Your task to perform on an android device: Go to CNN.com Image 0: 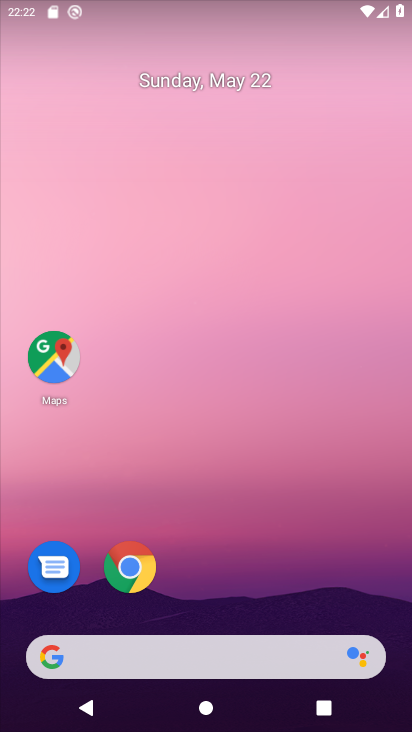
Step 0: click (130, 561)
Your task to perform on an android device: Go to CNN.com Image 1: 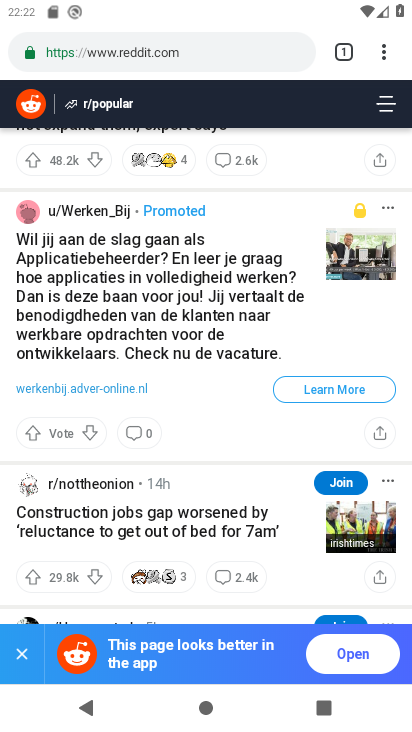
Step 1: click (335, 47)
Your task to perform on an android device: Go to CNN.com Image 2: 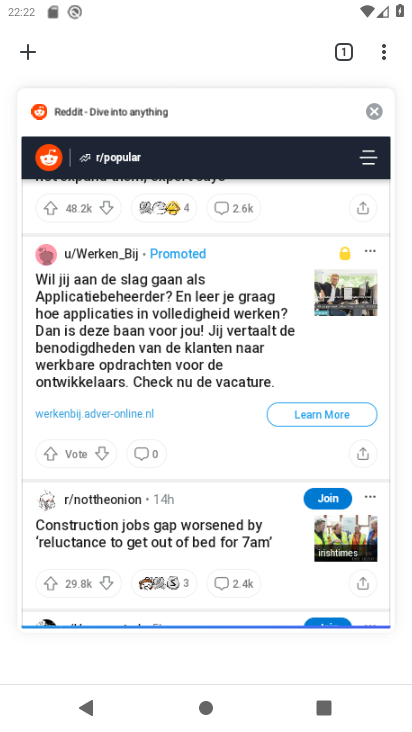
Step 2: click (33, 55)
Your task to perform on an android device: Go to CNN.com Image 3: 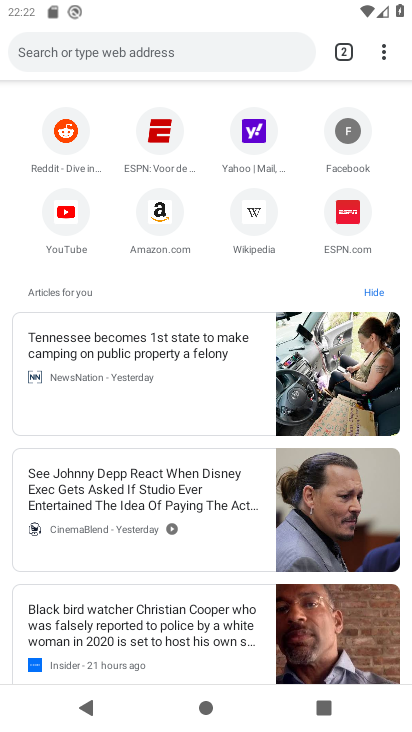
Step 3: click (66, 54)
Your task to perform on an android device: Go to CNN.com Image 4: 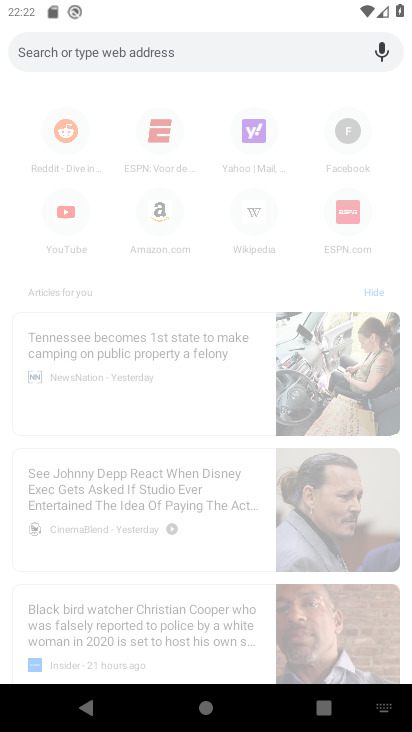
Step 4: type "cnn.com"
Your task to perform on an android device: Go to CNN.com Image 5: 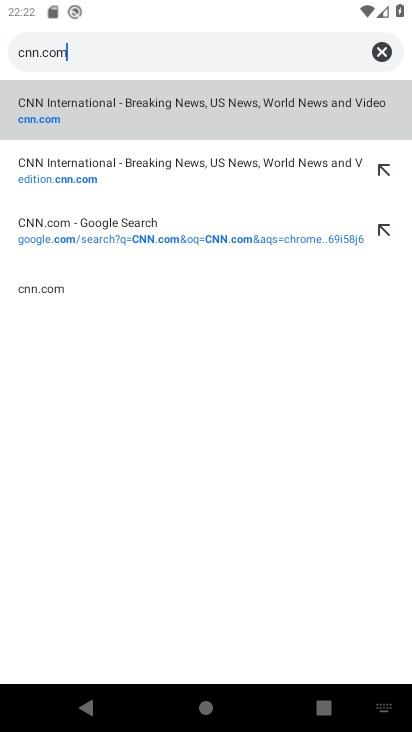
Step 5: click (62, 113)
Your task to perform on an android device: Go to CNN.com Image 6: 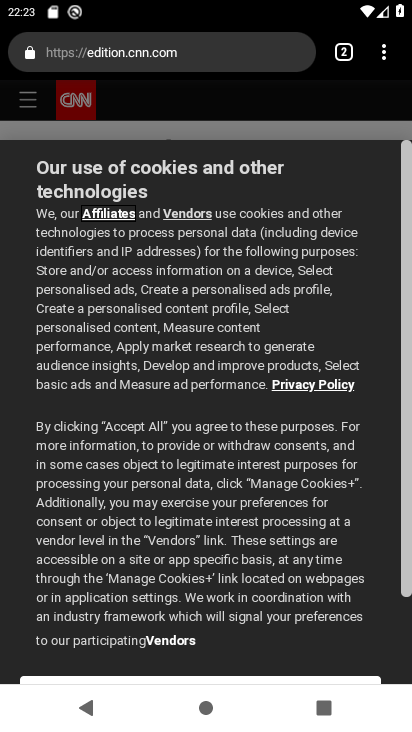
Step 6: drag from (245, 574) to (264, 70)
Your task to perform on an android device: Go to CNN.com Image 7: 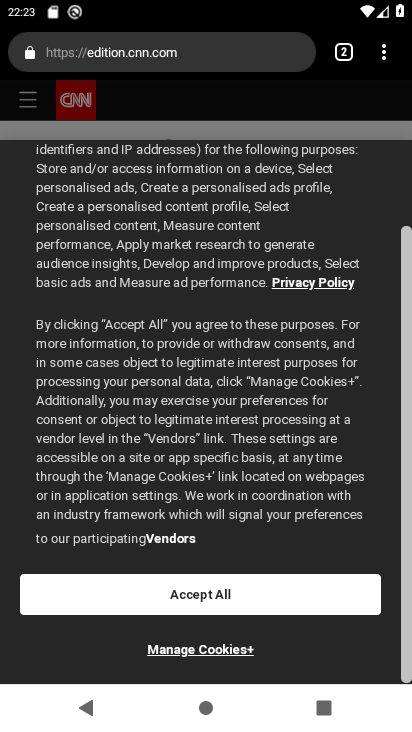
Step 7: click (245, 593)
Your task to perform on an android device: Go to CNN.com Image 8: 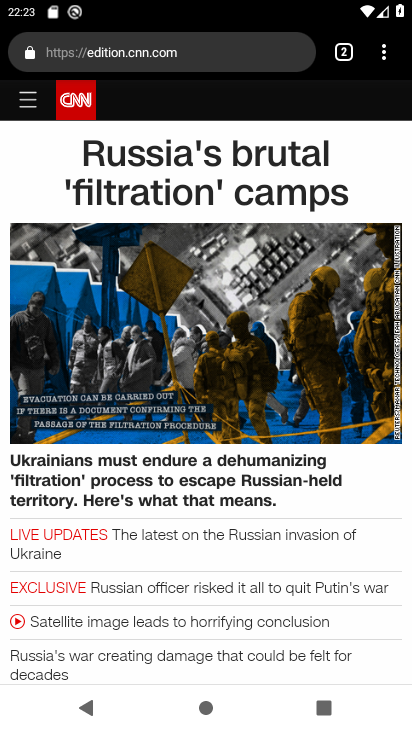
Step 8: task complete